Your task to perform on an android device: Toggle the flashlight Image 0: 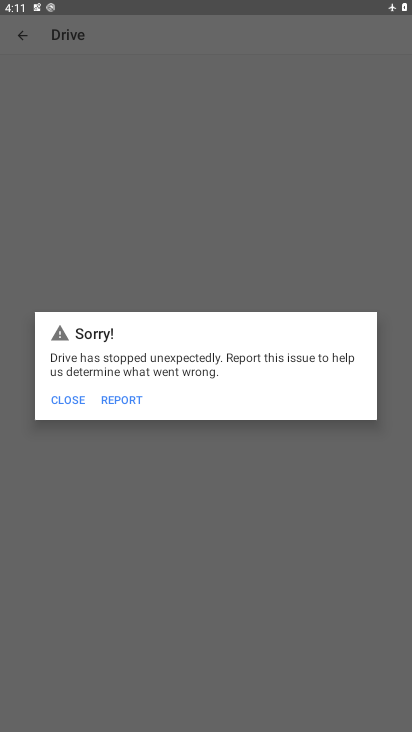
Step 0: press home button
Your task to perform on an android device: Toggle the flashlight Image 1: 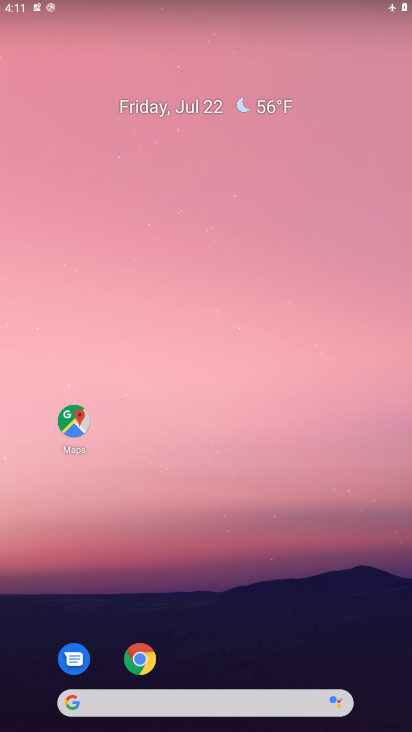
Step 1: drag from (215, 5) to (215, 566)
Your task to perform on an android device: Toggle the flashlight Image 2: 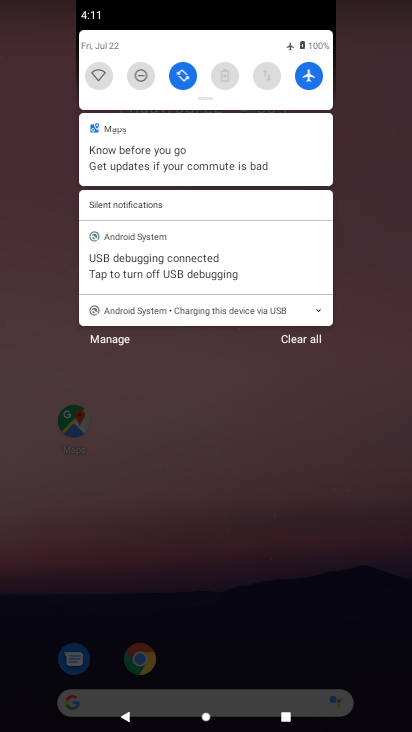
Step 2: drag from (232, 65) to (264, 453)
Your task to perform on an android device: Toggle the flashlight Image 3: 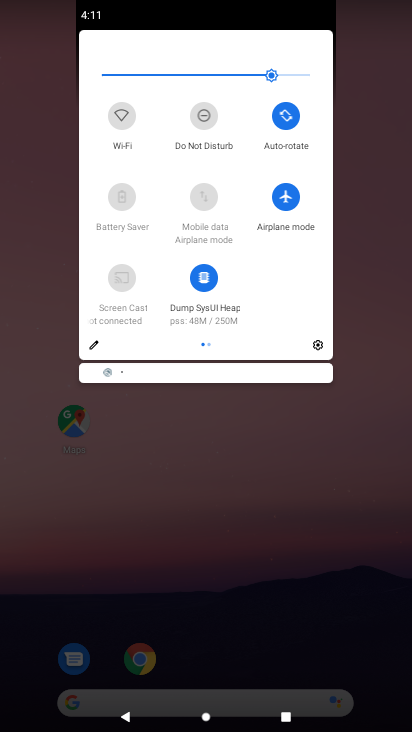
Step 3: drag from (314, 229) to (16, 279)
Your task to perform on an android device: Toggle the flashlight Image 4: 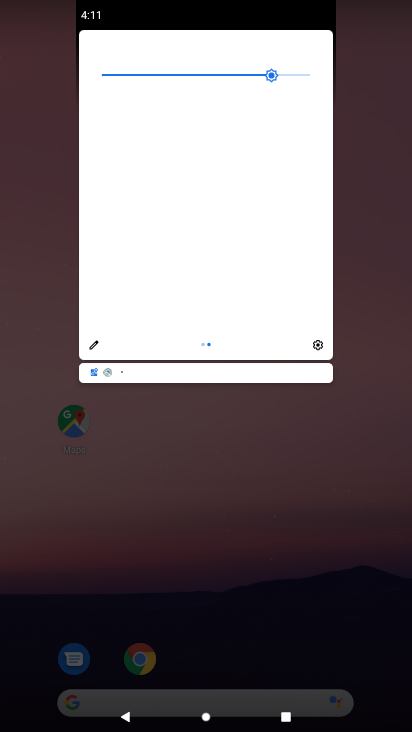
Step 4: click (93, 346)
Your task to perform on an android device: Toggle the flashlight Image 5: 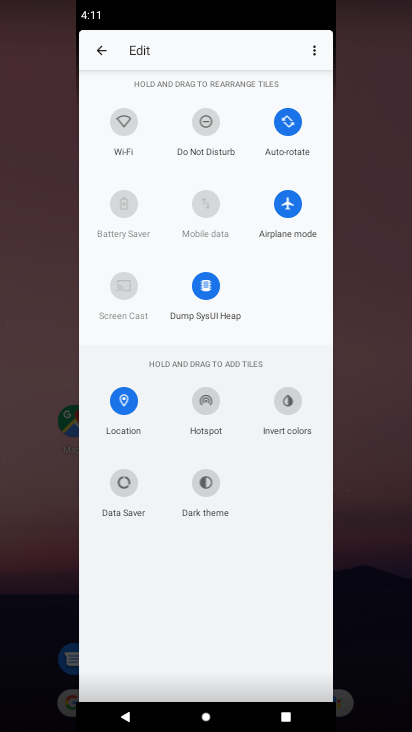
Step 5: task complete